Your task to perform on an android device: open app "WhatsApp Messenger" Image 0: 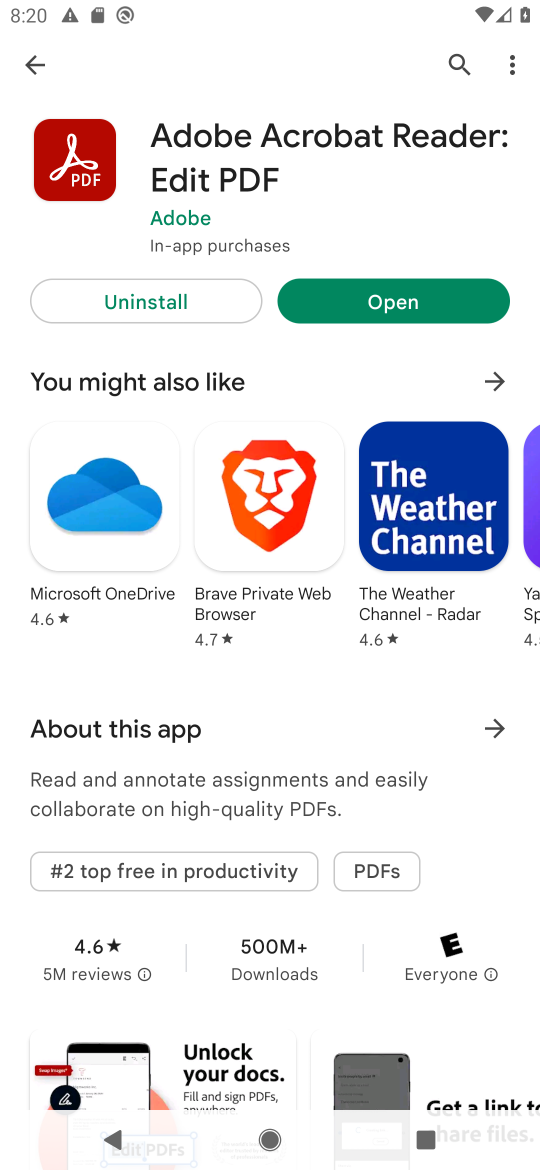
Step 0: click (457, 65)
Your task to perform on an android device: open app "WhatsApp Messenger" Image 1: 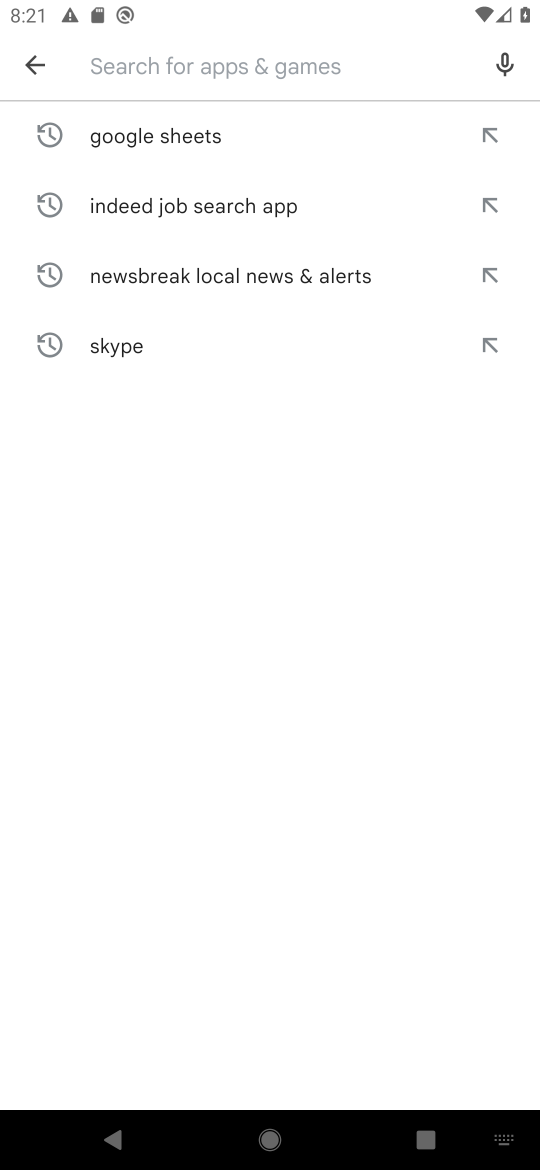
Step 1: type "whatsapp mssenger"
Your task to perform on an android device: open app "WhatsApp Messenger" Image 2: 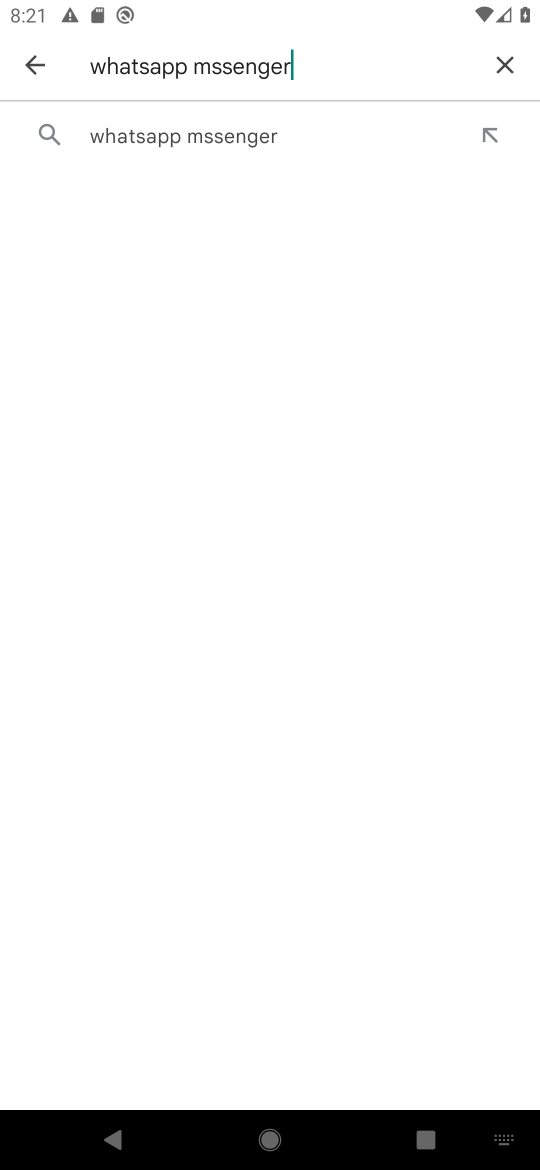
Step 2: click (360, 144)
Your task to perform on an android device: open app "WhatsApp Messenger" Image 3: 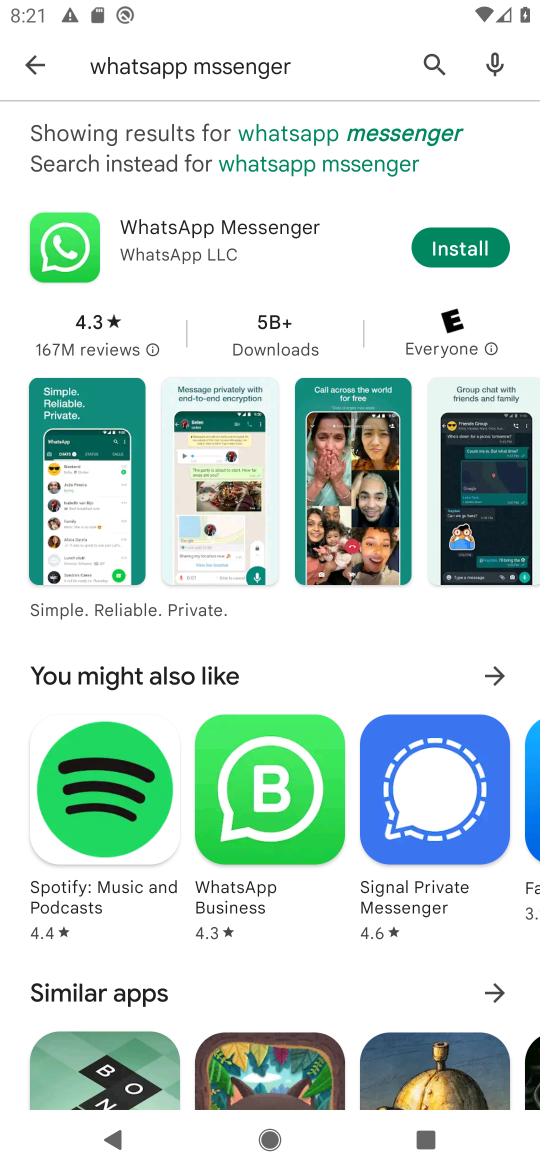
Step 3: click (203, 256)
Your task to perform on an android device: open app "WhatsApp Messenger" Image 4: 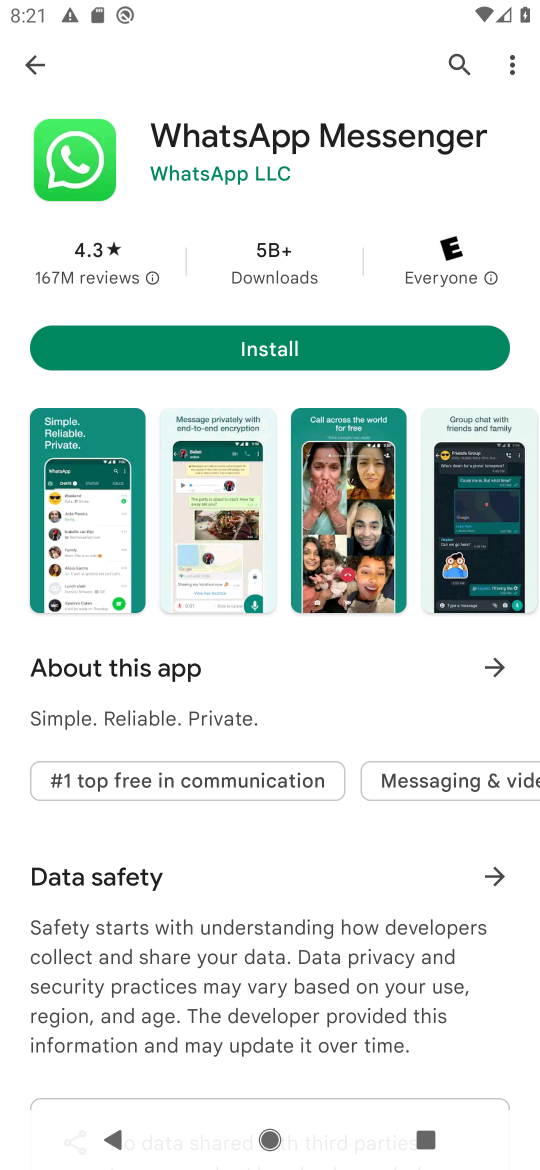
Step 4: task complete